Your task to perform on an android device: set the stopwatch Image 0: 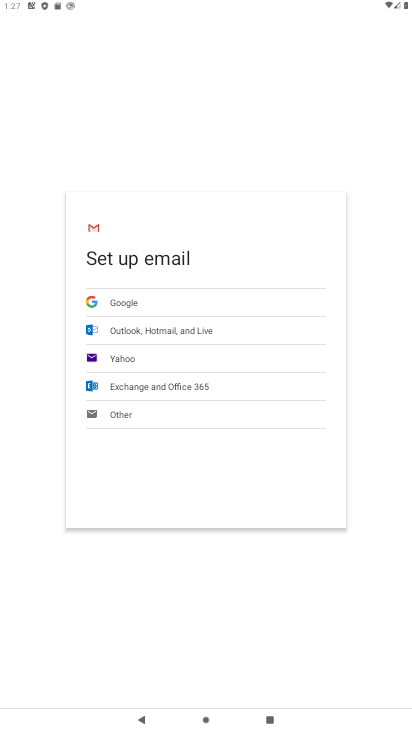
Step 0: press home button
Your task to perform on an android device: set the stopwatch Image 1: 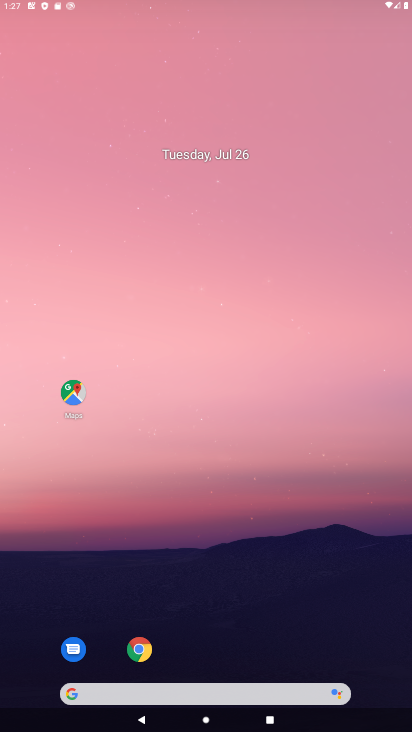
Step 1: drag from (385, 654) to (189, 158)
Your task to perform on an android device: set the stopwatch Image 2: 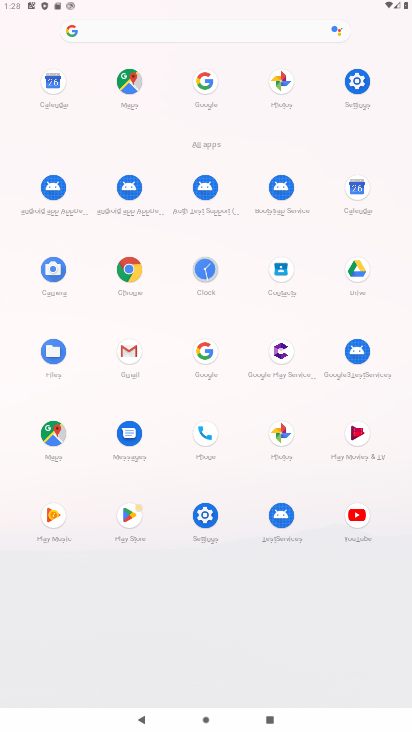
Step 2: click (206, 268)
Your task to perform on an android device: set the stopwatch Image 3: 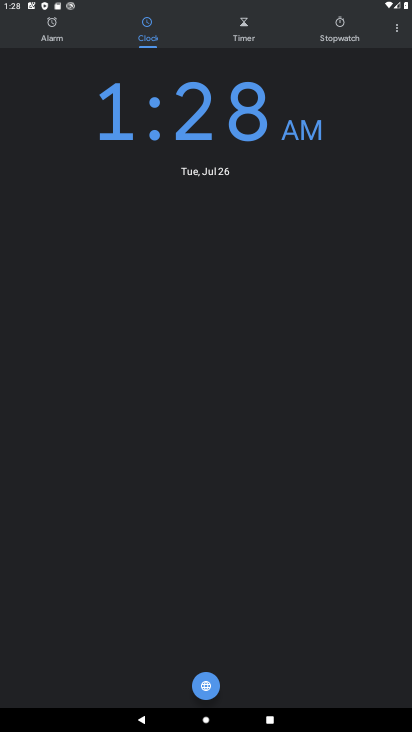
Step 3: click (334, 35)
Your task to perform on an android device: set the stopwatch Image 4: 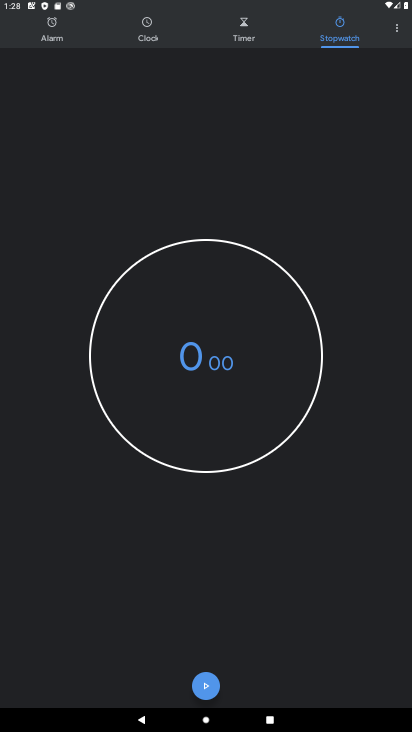
Step 4: click (199, 687)
Your task to perform on an android device: set the stopwatch Image 5: 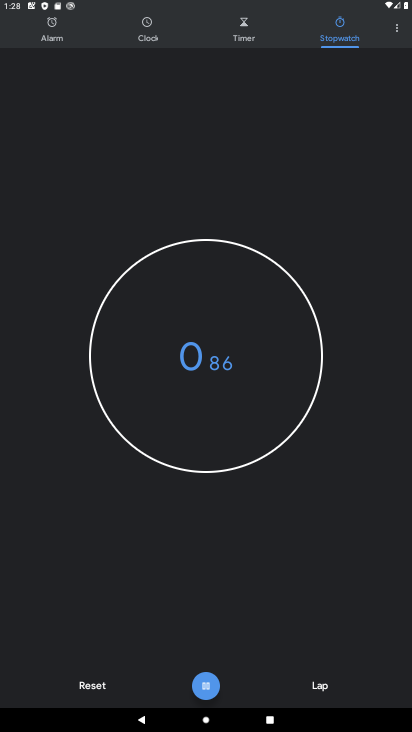
Step 5: click (199, 687)
Your task to perform on an android device: set the stopwatch Image 6: 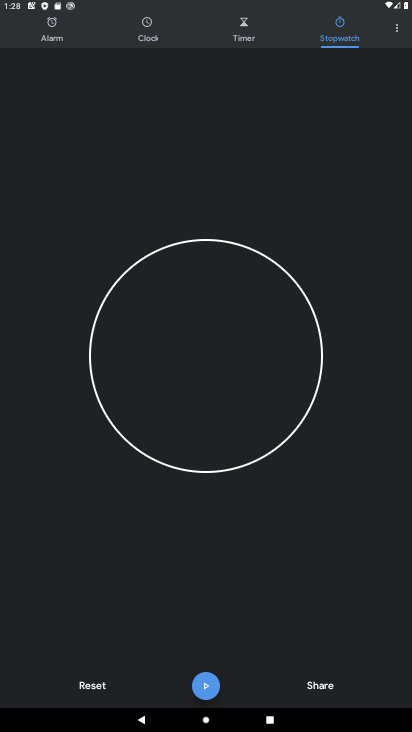
Step 6: task complete